Your task to perform on an android device: turn off translation in the chrome app Image 0: 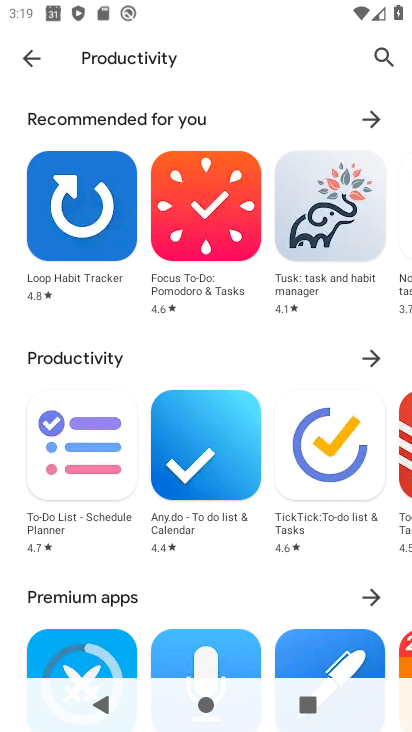
Step 0: press home button
Your task to perform on an android device: turn off translation in the chrome app Image 1: 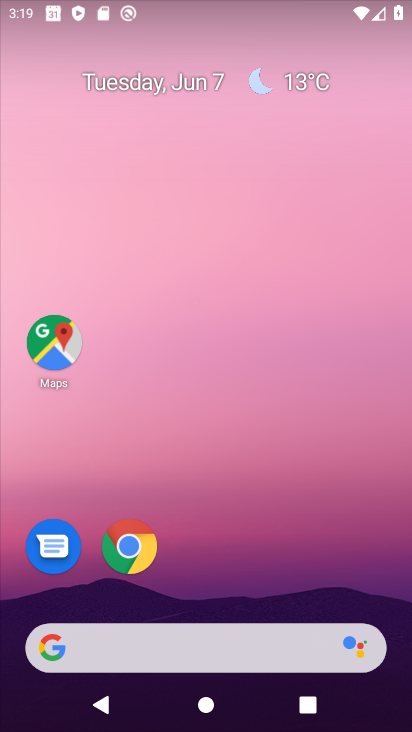
Step 1: click (142, 543)
Your task to perform on an android device: turn off translation in the chrome app Image 2: 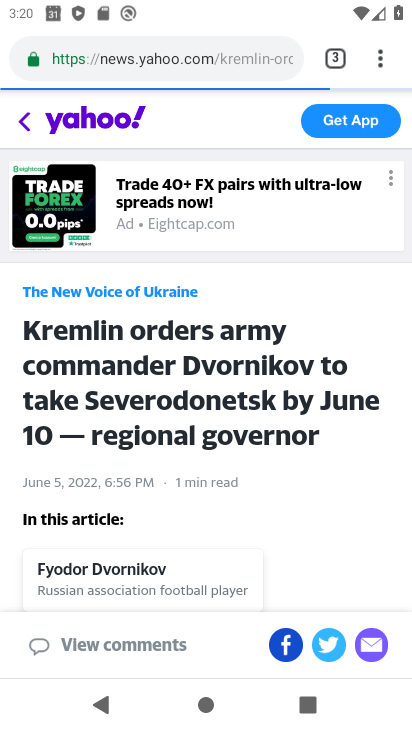
Step 2: click (387, 51)
Your task to perform on an android device: turn off translation in the chrome app Image 3: 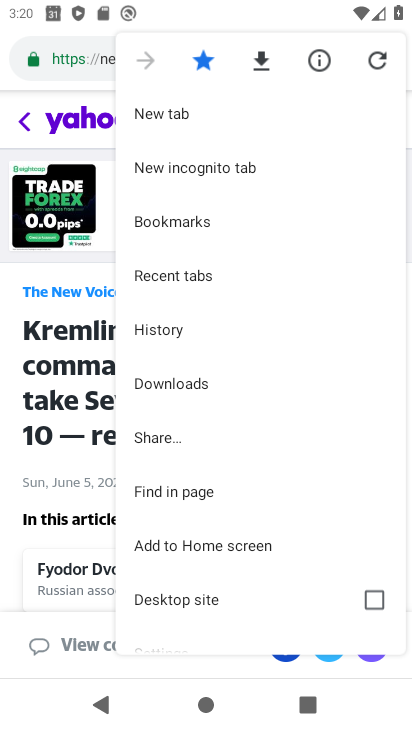
Step 3: drag from (175, 600) to (266, 194)
Your task to perform on an android device: turn off translation in the chrome app Image 4: 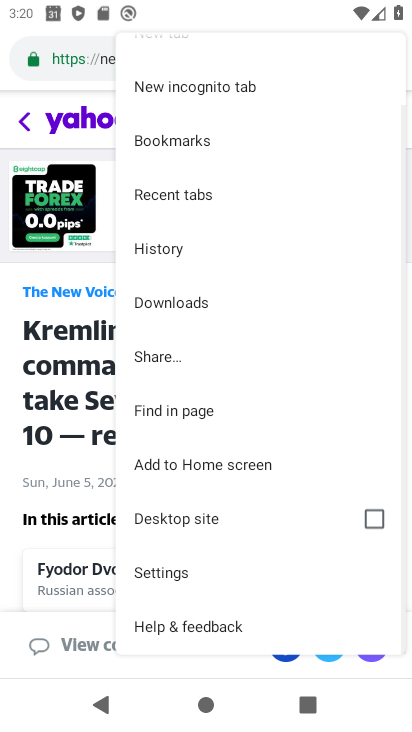
Step 4: click (164, 581)
Your task to perform on an android device: turn off translation in the chrome app Image 5: 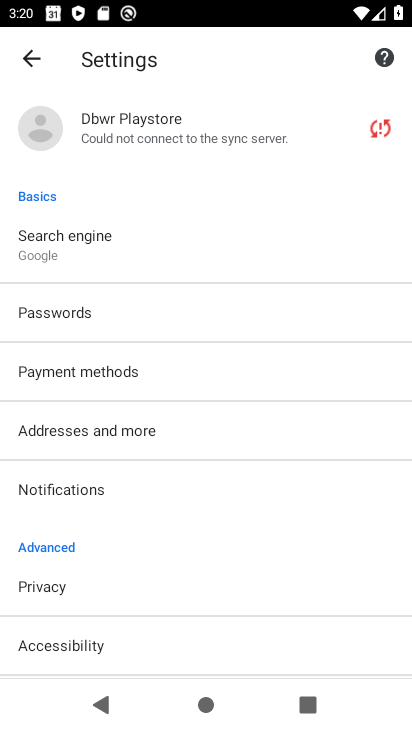
Step 5: drag from (164, 581) to (268, 192)
Your task to perform on an android device: turn off translation in the chrome app Image 6: 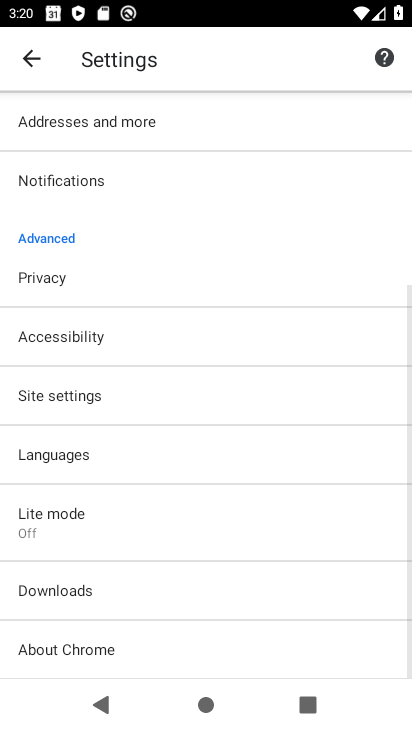
Step 6: click (42, 482)
Your task to perform on an android device: turn off translation in the chrome app Image 7: 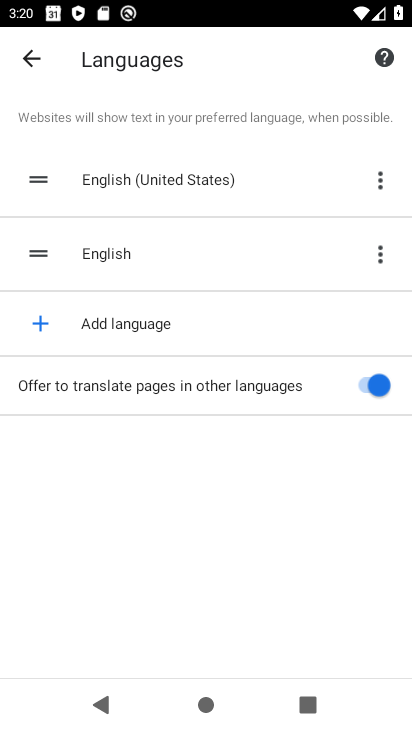
Step 7: click (388, 382)
Your task to perform on an android device: turn off translation in the chrome app Image 8: 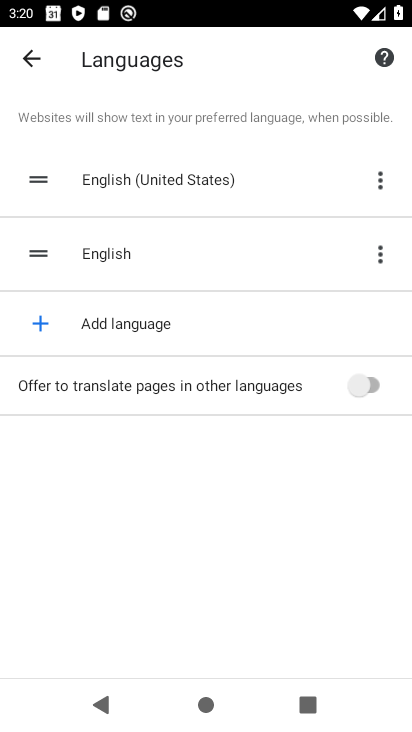
Step 8: task complete